Your task to perform on an android device: clear all cookies in the chrome app Image 0: 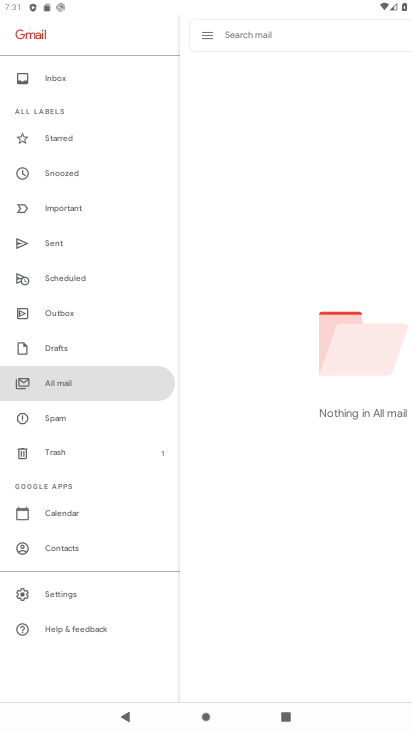
Step 0: press home button
Your task to perform on an android device: clear all cookies in the chrome app Image 1: 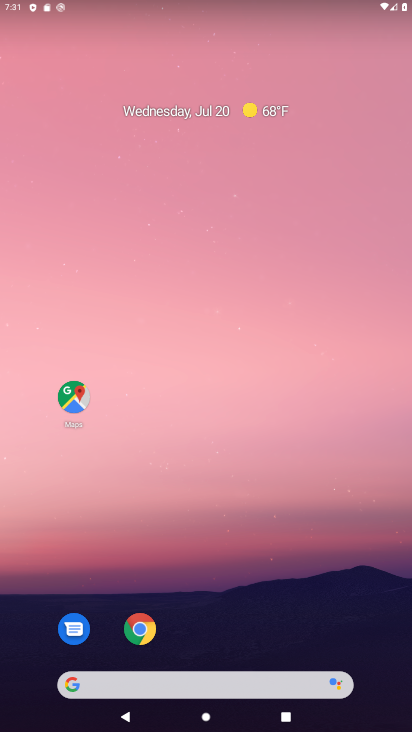
Step 1: drag from (355, 591) to (363, 94)
Your task to perform on an android device: clear all cookies in the chrome app Image 2: 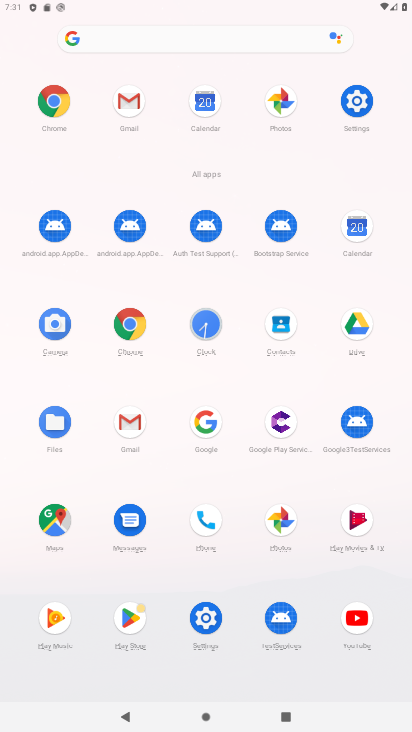
Step 2: click (135, 323)
Your task to perform on an android device: clear all cookies in the chrome app Image 3: 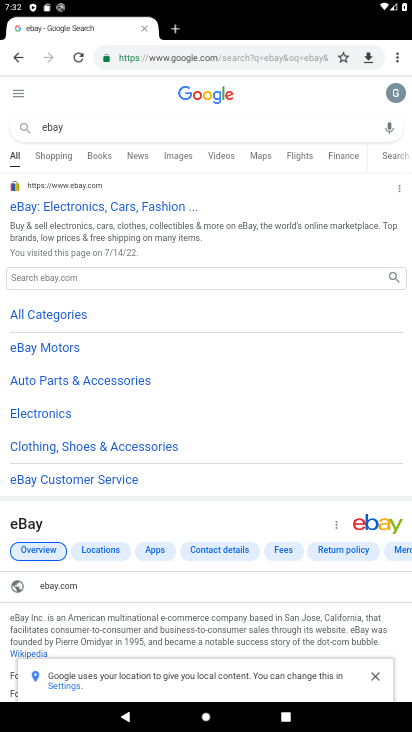
Step 3: click (399, 60)
Your task to perform on an android device: clear all cookies in the chrome app Image 4: 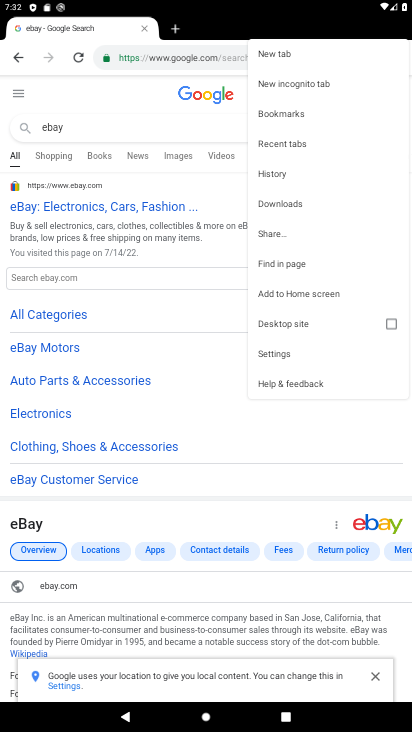
Step 4: click (279, 358)
Your task to perform on an android device: clear all cookies in the chrome app Image 5: 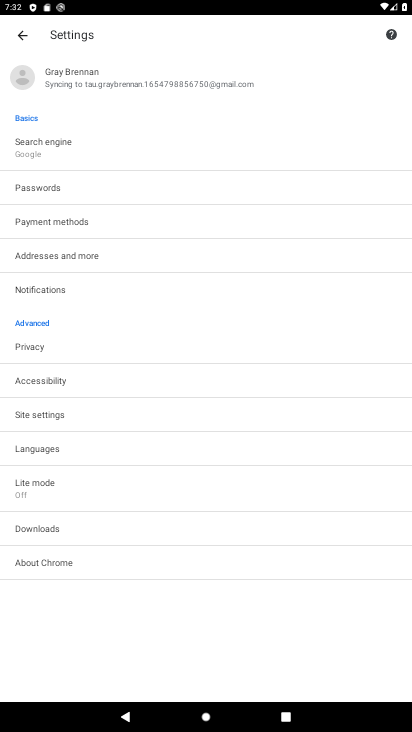
Step 5: click (243, 349)
Your task to perform on an android device: clear all cookies in the chrome app Image 6: 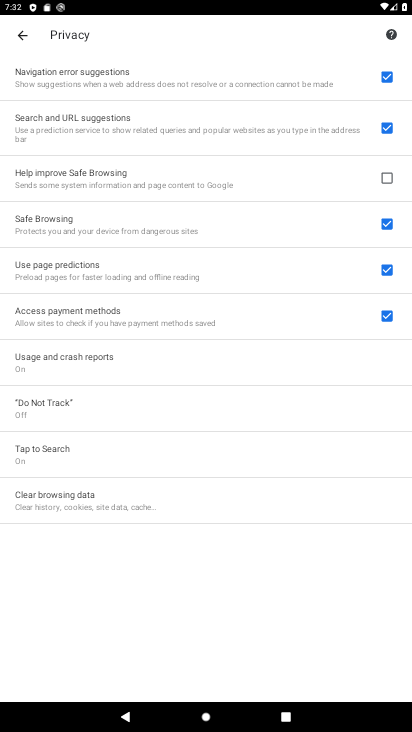
Step 6: click (189, 502)
Your task to perform on an android device: clear all cookies in the chrome app Image 7: 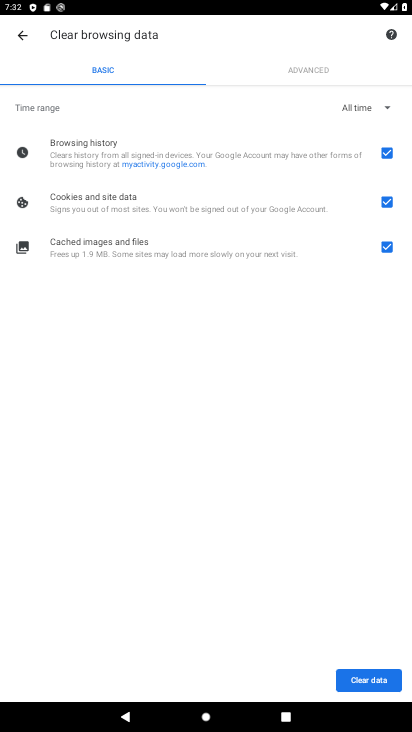
Step 7: click (364, 677)
Your task to perform on an android device: clear all cookies in the chrome app Image 8: 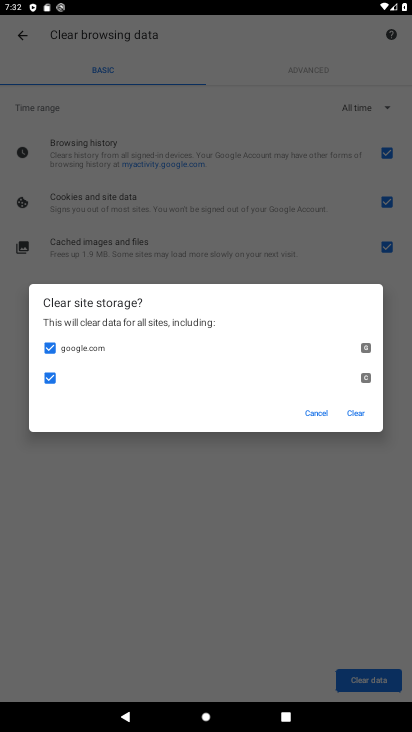
Step 8: click (356, 414)
Your task to perform on an android device: clear all cookies in the chrome app Image 9: 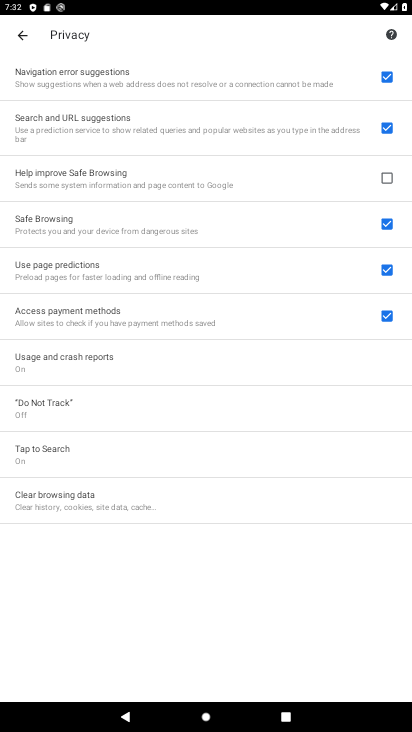
Step 9: task complete